Your task to perform on an android device: Open display settings Image 0: 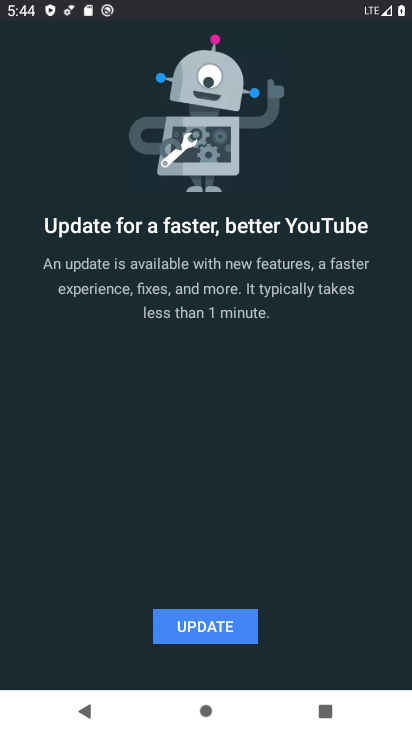
Step 0: press home button
Your task to perform on an android device: Open display settings Image 1: 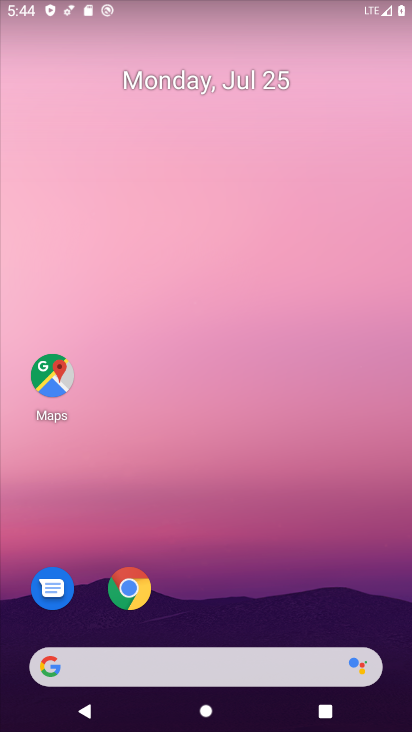
Step 1: drag from (195, 669) to (219, 118)
Your task to perform on an android device: Open display settings Image 2: 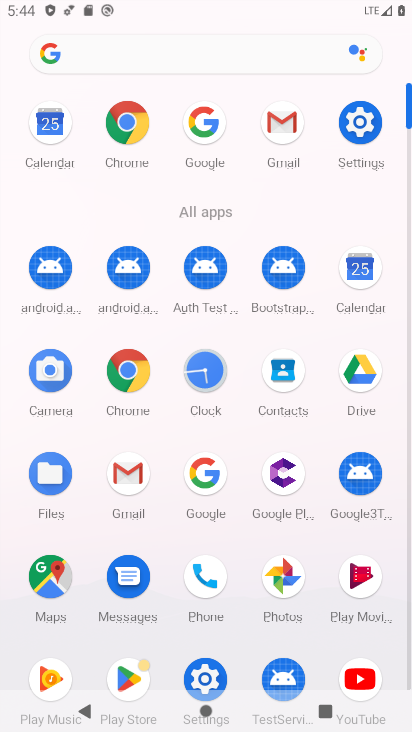
Step 2: click (358, 121)
Your task to perform on an android device: Open display settings Image 3: 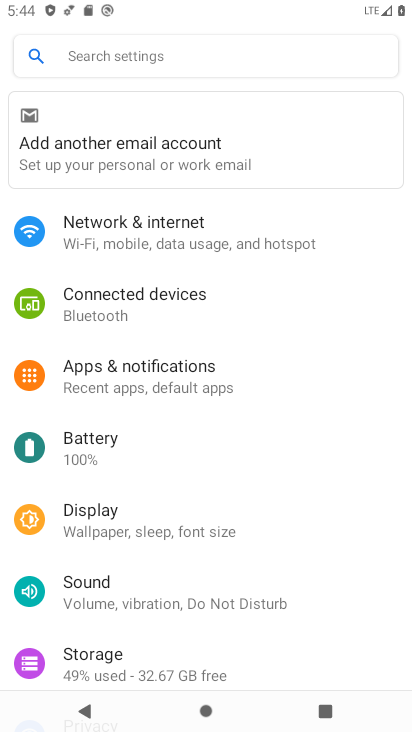
Step 3: click (91, 521)
Your task to perform on an android device: Open display settings Image 4: 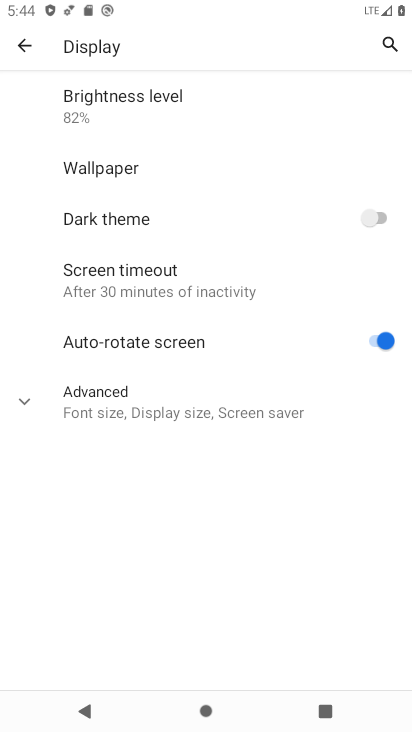
Step 4: task complete